Your task to perform on an android device: change the clock display to digital Image 0: 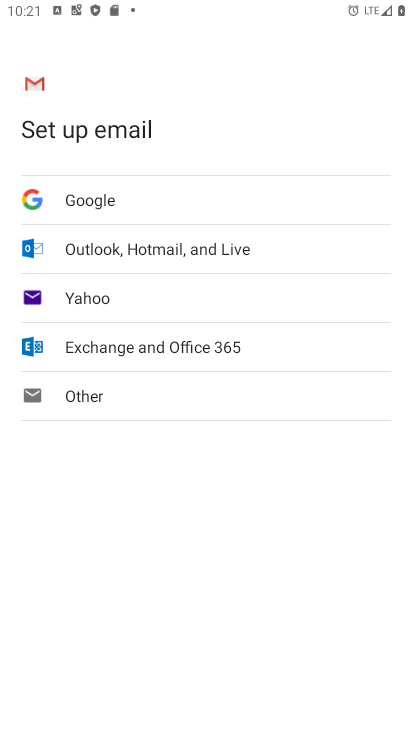
Step 0: press home button
Your task to perform on an android device: change the clock display to digital Image 1: 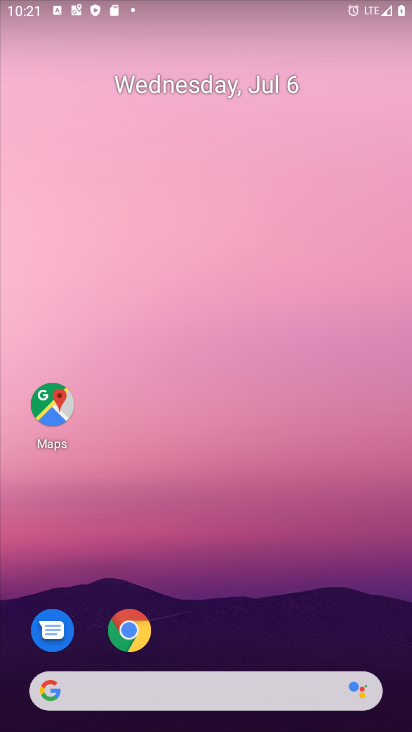
Step 1: drag from (393, 613) to (327, 110)
Your task to perform on an android device: change the clock display to digital Image 2: 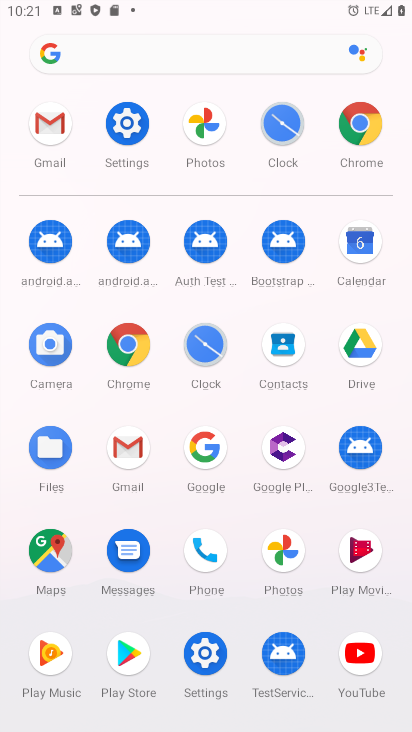
Step 2: click (203, 342)
Your task to perform on an android device: change the clock display to digital Image 3: 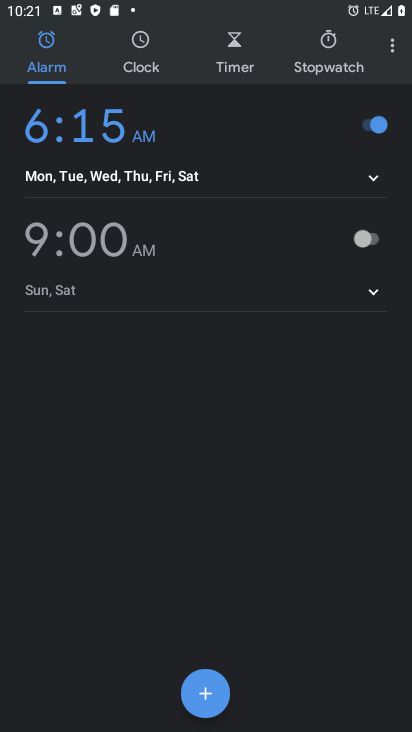
Step 3: click (392, 55)
Your task to perform on an android device: change the clock display to digital Image 4: 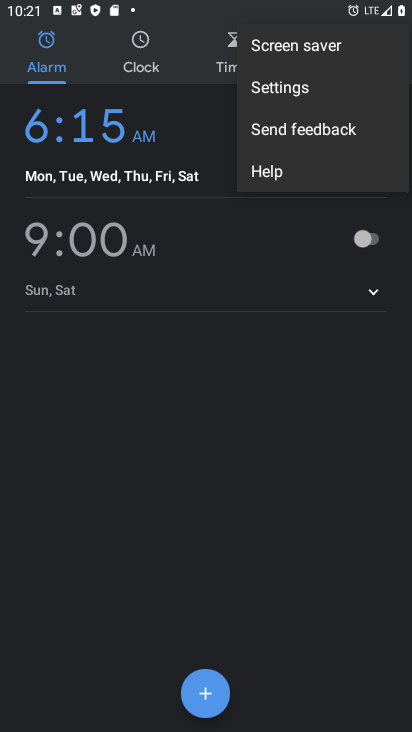
Step 4: click (278, 92)
Your task to perform on an android device: change the clock display to digital Image 5: 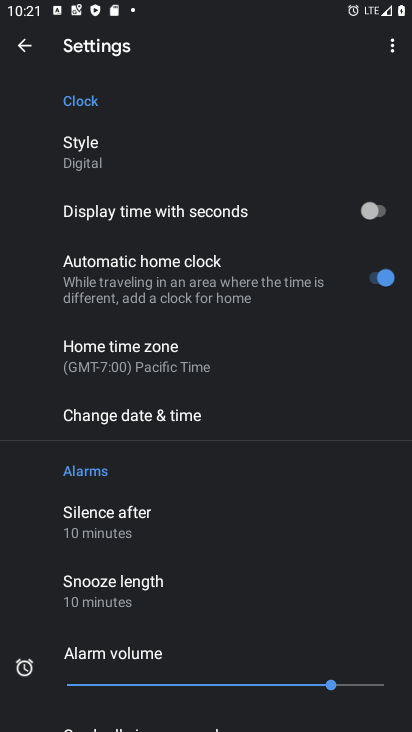
Step 5: task complete